Your task to perform on an android device: check out phone information Image 0: 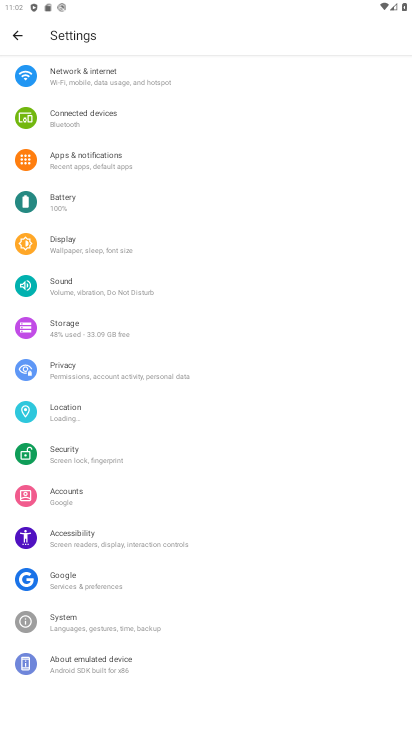
Step 0: press home button
Your task to perform on an android device: check out phone information Image 1: 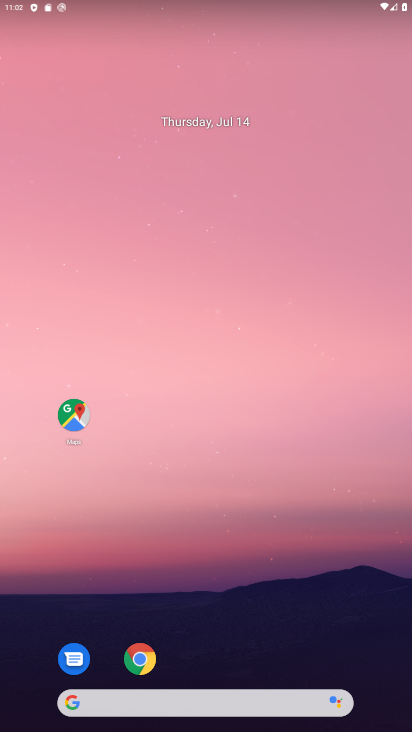
Step 1: drag from (359, 625) to (322, 77)
Your task to perform on an android device: check out phone information Image 2: 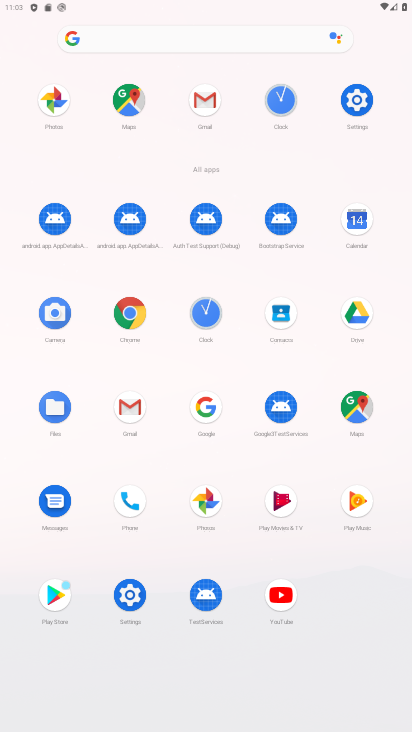
Step 2: click (353, 103)
Your task to perform on an android device: check out phone information Image 3: 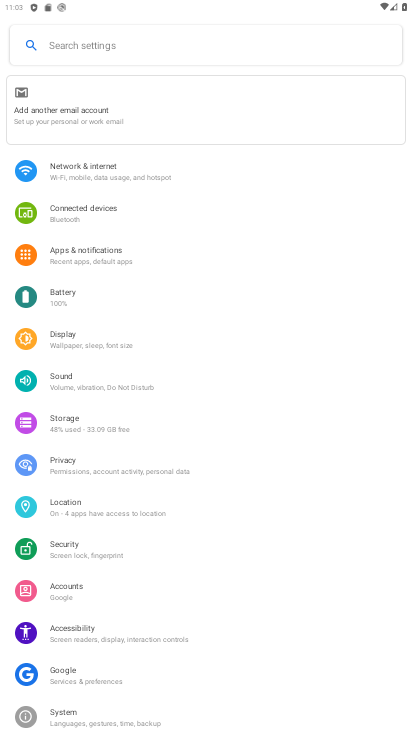
Step 3: drag from (196, 700) to (221, 218)
Your task to perform on an android device: check out phone information Image 4: 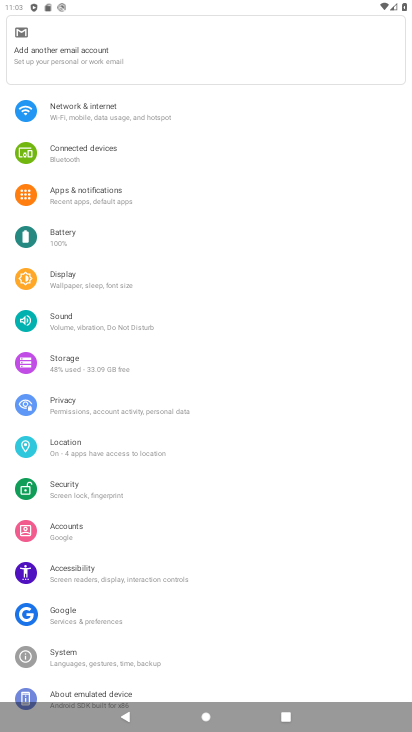
Step 4: click (149, 685)
Your task to perform on an android device: check out phone information Image 5: 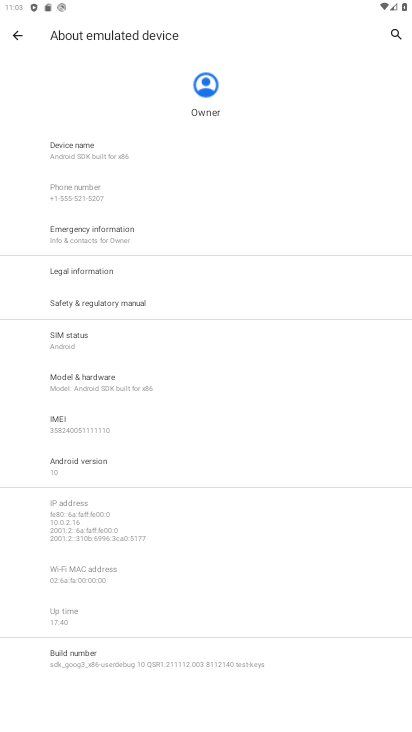
Step 5: task complete